Your task to perform on an android device: Search for usb-c to usb-b on walmart.com, select the first entry, and add it to the cart. Image 0: 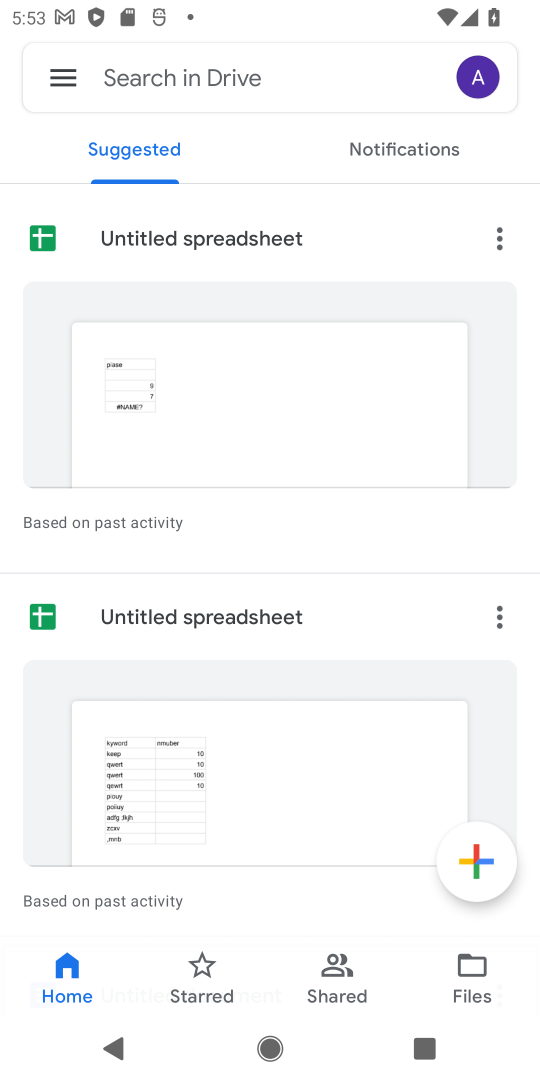
Step 0: press home button
Your task to perform on an android device: Search for usb-c to usb-b on walmart.com, select the first entry, and add it to the cart. Image 1: 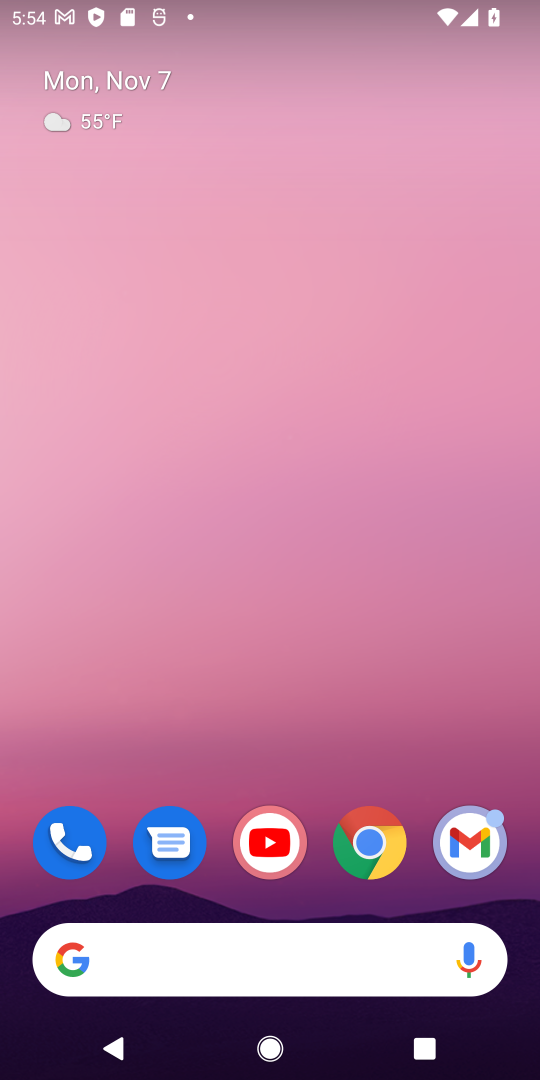
Step 1: click (359, 846)
Your task to perform on an android device: Search for usb-c to usb-b on walmart.com, select the first entry, and add it to the cart. Image 2: 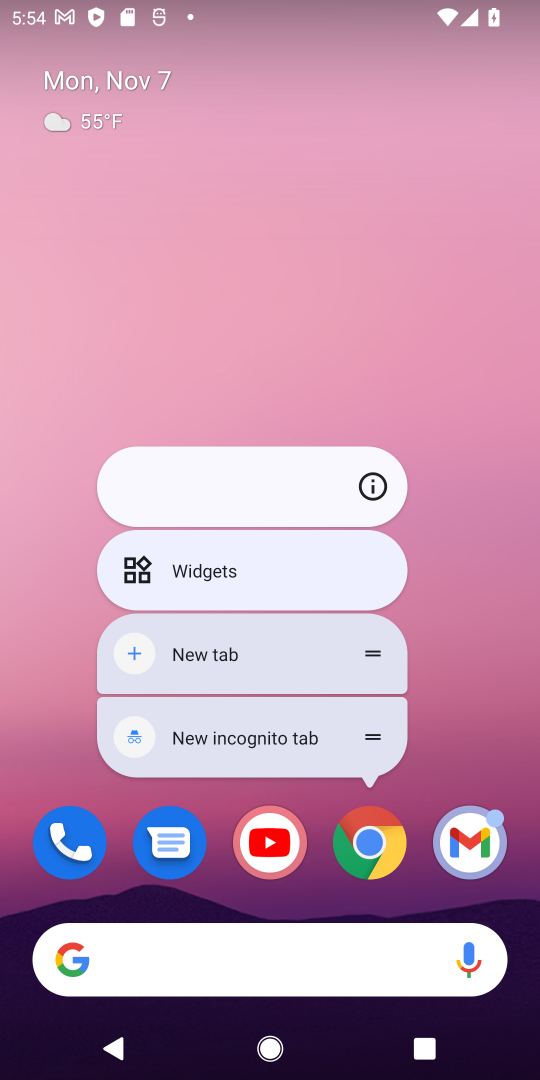
Step 2: click (361, 846)
Your task to perform on an android device: Search for usb-c to usb-b on walmart.com, select the first entry, and add it to the cart. Image 3: 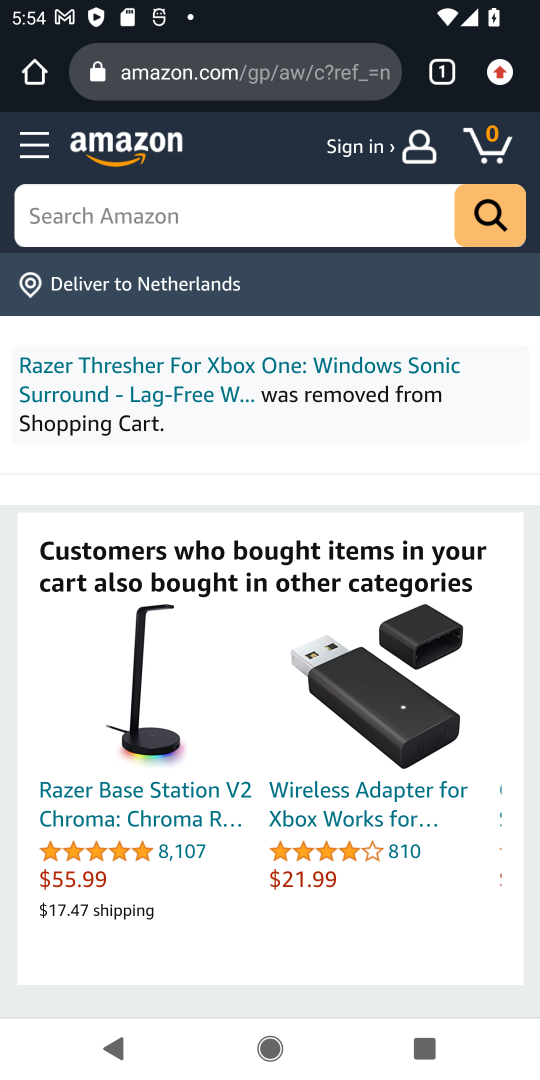
Step 3: click (281, 78)
Your task to perform on an android device: Search for usb-c to usb-b on walmart.com, select the first entry, and add it to the cart. Image 4: 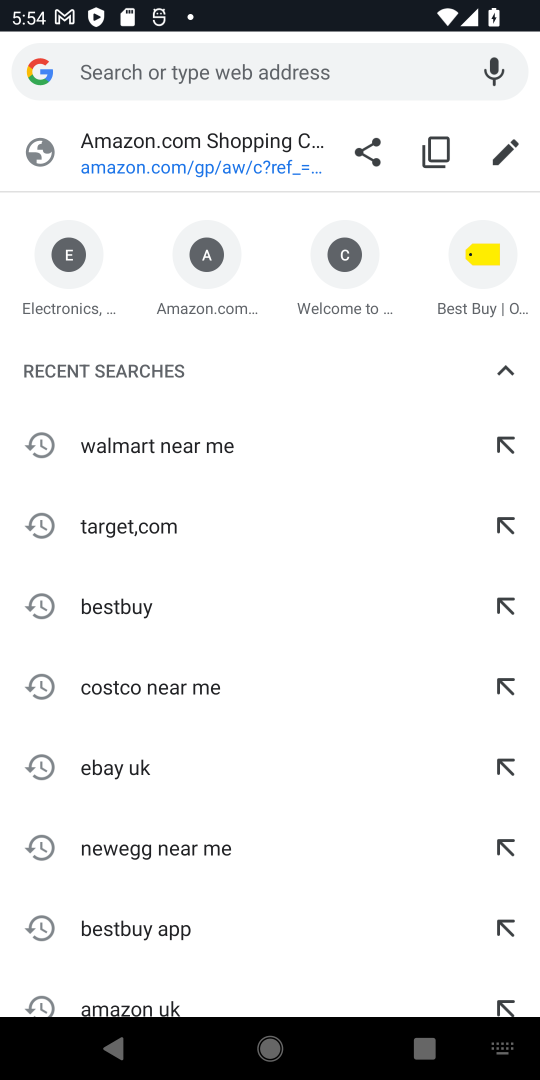
Step 4: type " walmart.com"
Your task to perform on an android device: Search for usb-c to usb-b on walmart.com, select the first entry, and add it to the cart. Image 5: 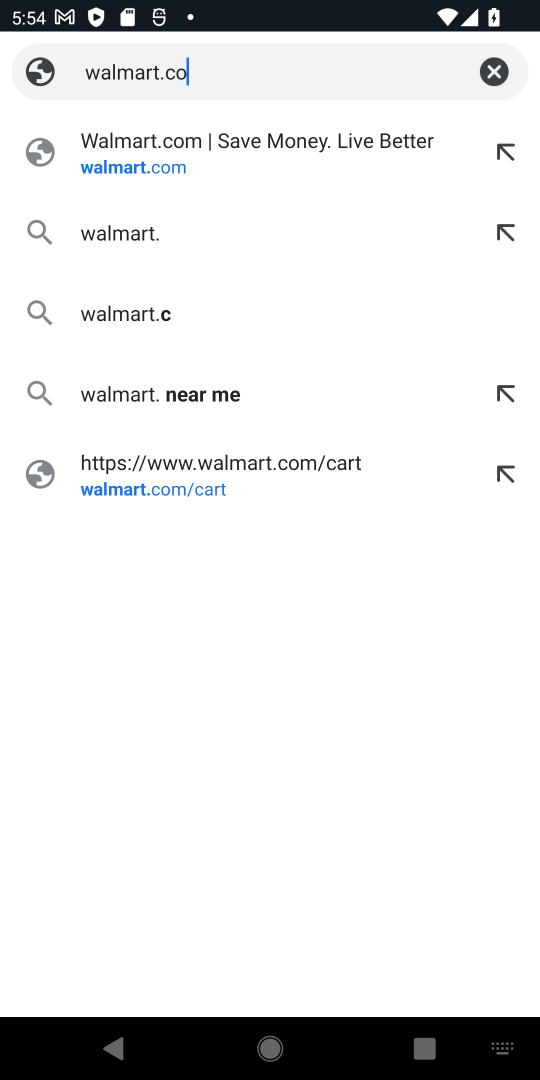
Step 5: press enter
Your task to perform on an android device: Search for usb-c to usb-b on walmart.com, select the first entry, and add it to the cart. Image 6: 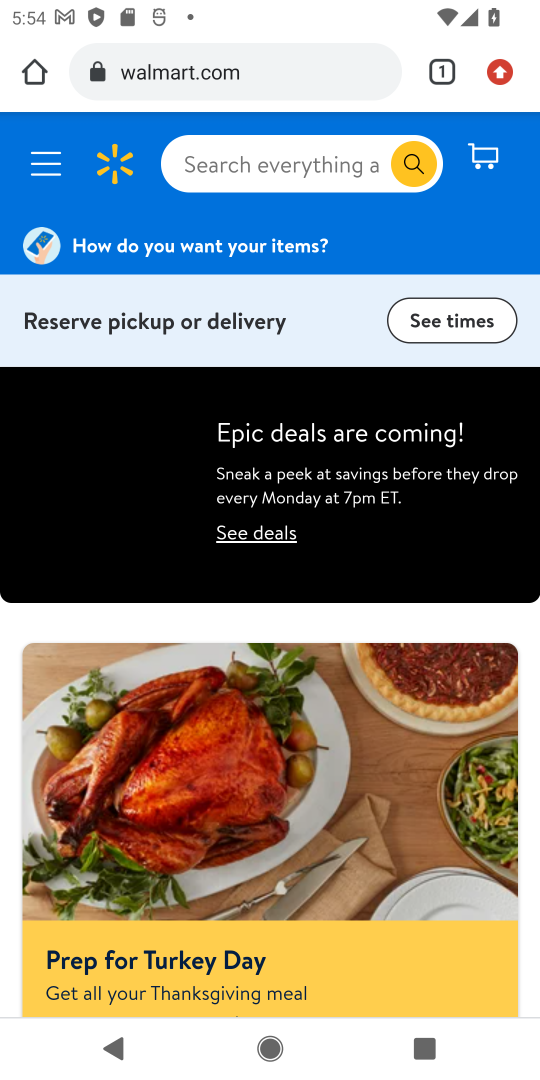
Step 6: click (323, 169)
Your task to perform on an android device: Search for usb-c to usb-b on walmart.com, select the first entry, and add it to the cart. Image 7: 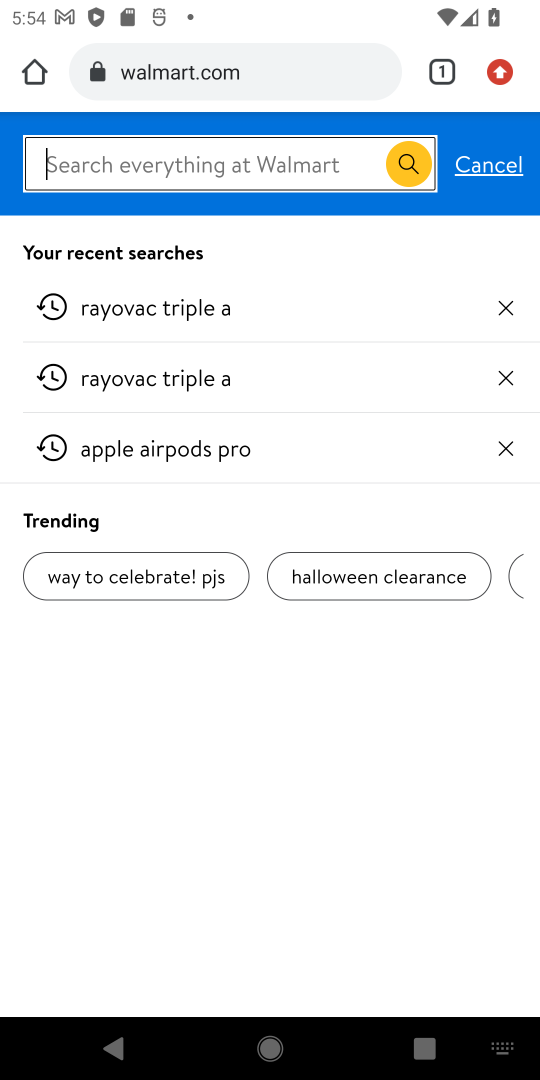
Step 7: type "usb-c to usb-b"
Your task to perform on an android device: Search for usb-c to usb-b on walmart.com, select the first entry, and add it to the cart. Image 8: 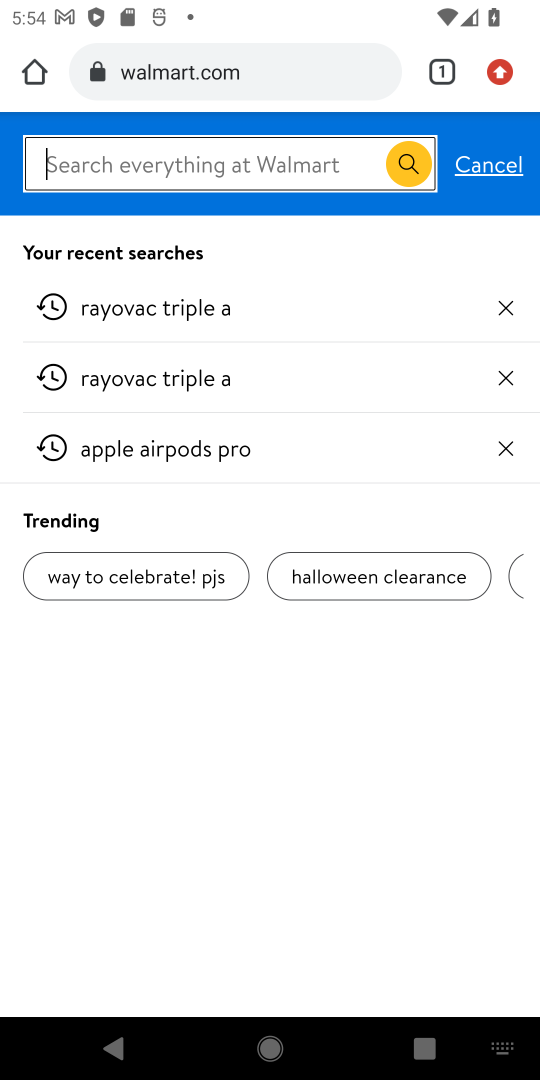
Step 8: press enter
Your task to perform on an android device: Search for usb-c to usb-b on walmart.com, select the first entry, and add it to the cart. Image 9: 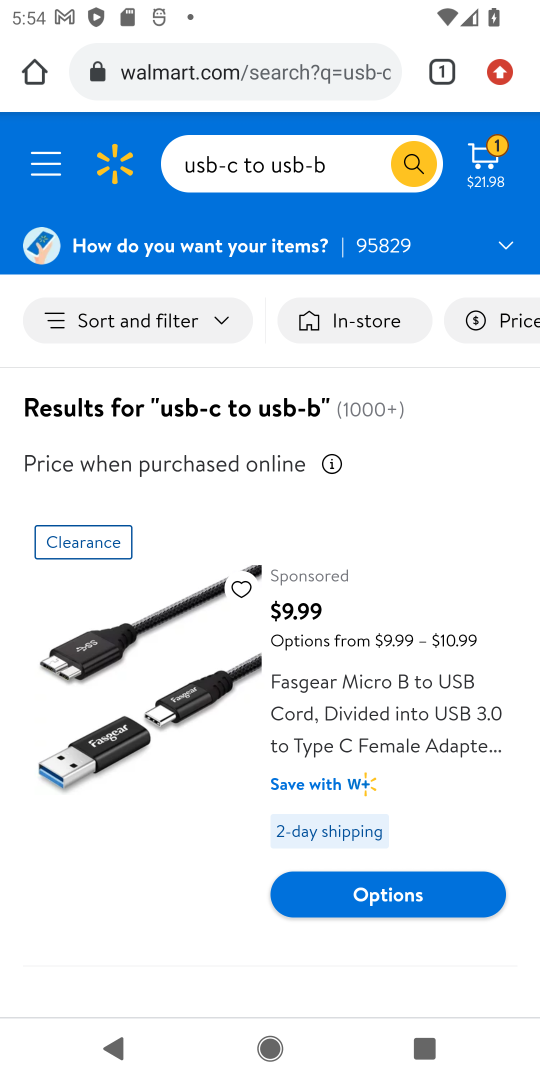
Step 9: drag from (239, 798) to (350, 591)
Your task to perform on an android device: Search for usb-c to usb-b on walmart.com, select the first entry, and add it to the cart. Image 10: 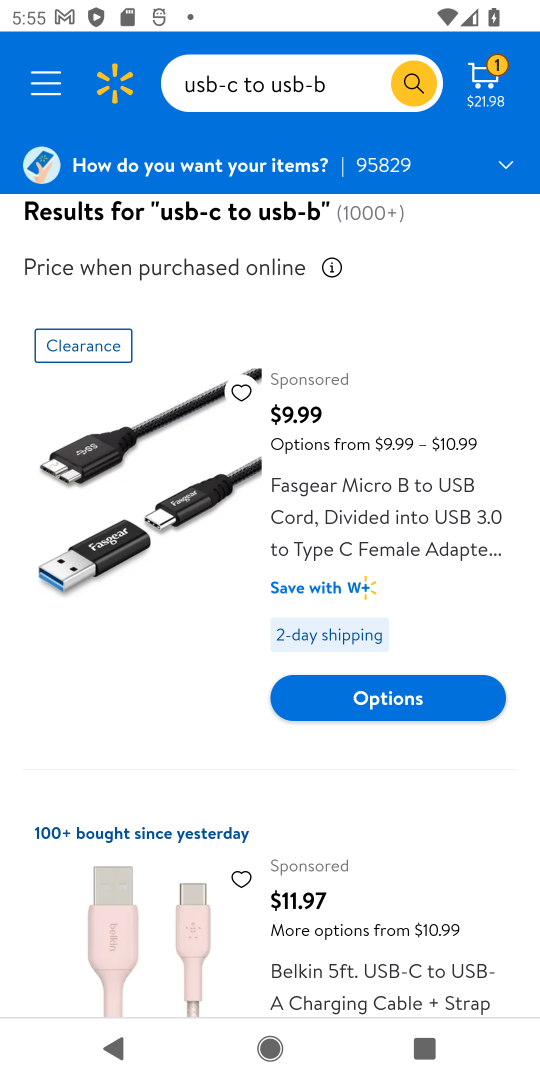
Step 10: click (376, 514)
Your task to perform on an android device: Search for usb-c to usb-b on walmart.com, select the first entry, and add it to the cart. Image 11: 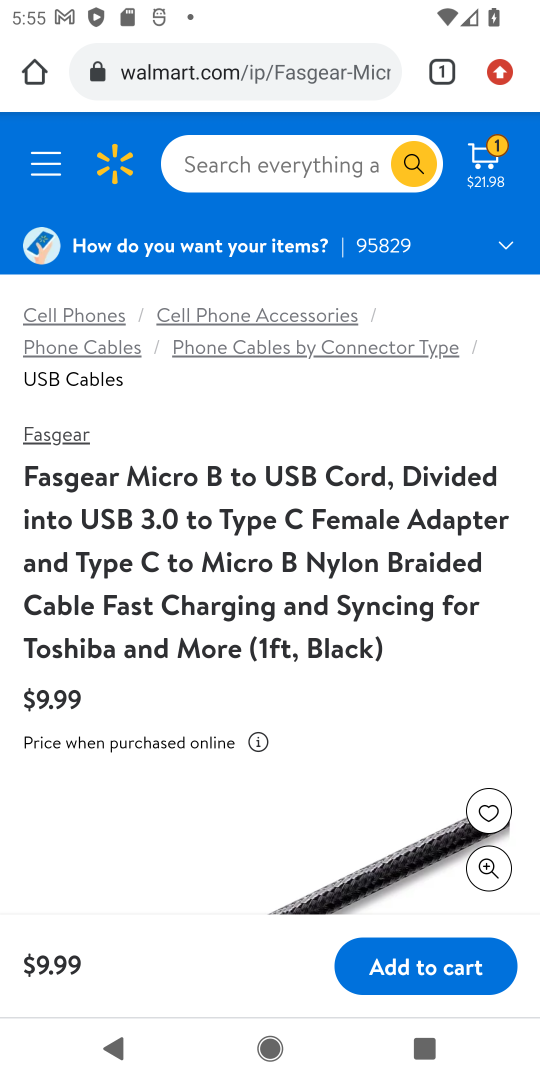
Step 11: drag from (347, 743) to (484, 298)
Your task to perform on an android device: Search for usb-c to usb-b on walmart.com, select the first entry, and add it to the cart. Image 12: 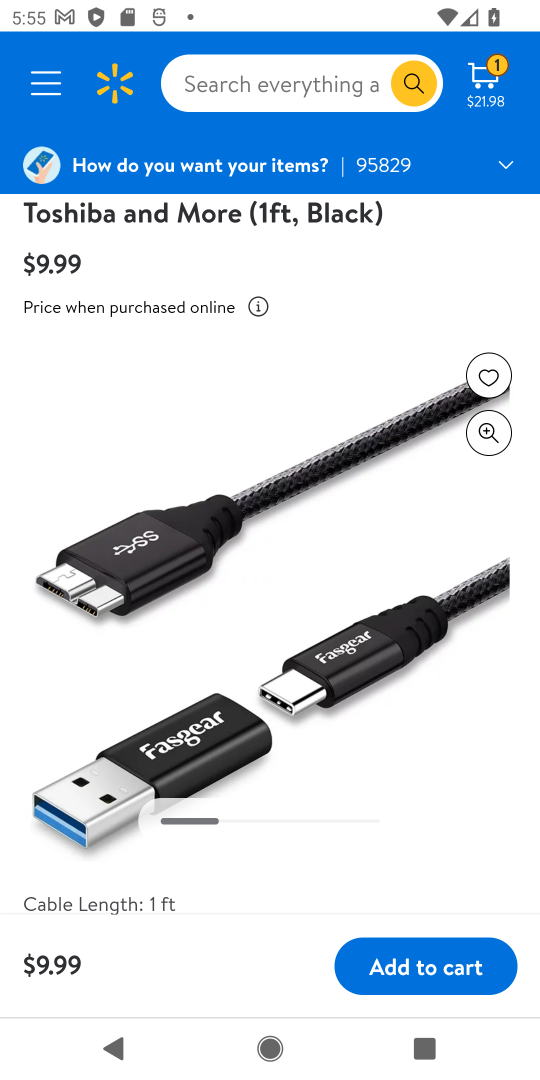
Step 12: drag from (227, 828) to (393, 405)
Your task to perform on an android device: Search for usb-c to usb-b on walmart.com, select the first entry, and add it to the cart. Image 13: 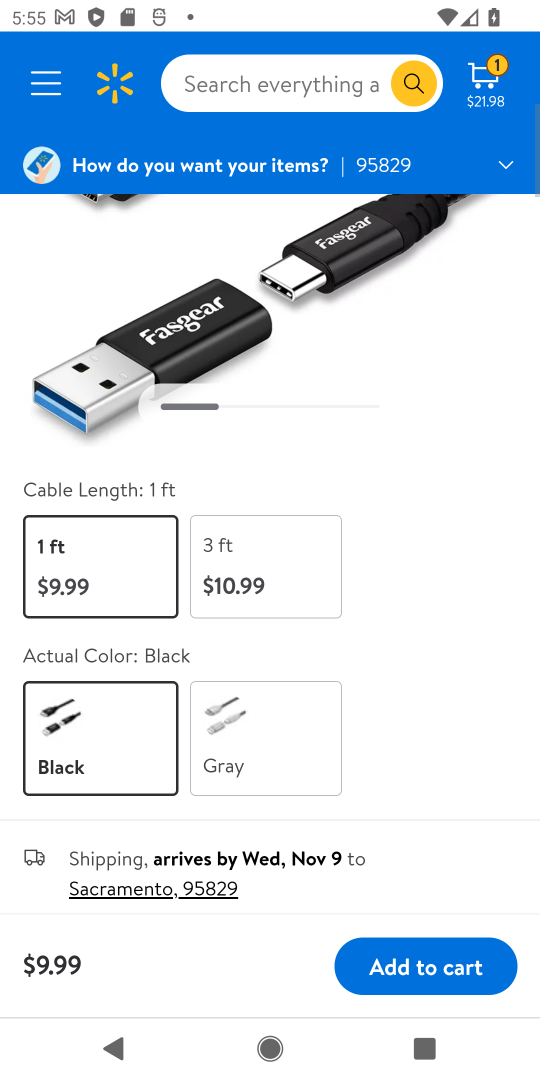
Step 13: drag from (391, 463) to (426, 926)
Your task to perform on an android device: Search for usb-c to usb-b on walmart.com, select the first entry, and add it to the cart. Image 14: 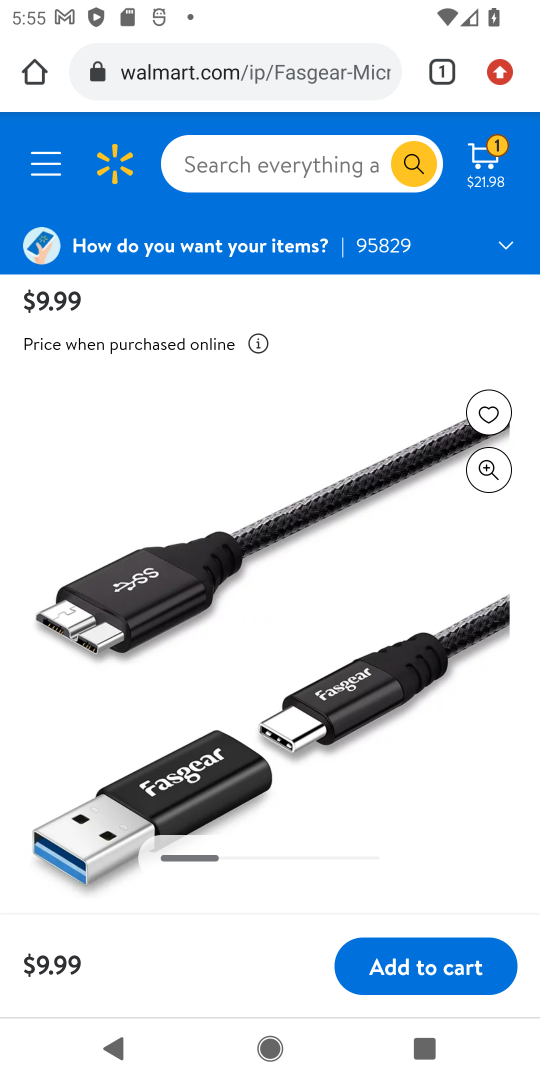
Step 14: drag from (342, 416) to (410, 887)
Your task to perform on an android device: Search for usb-c to usb-b on walmart.com, select the first entry, and add it to the cart. Image 15: 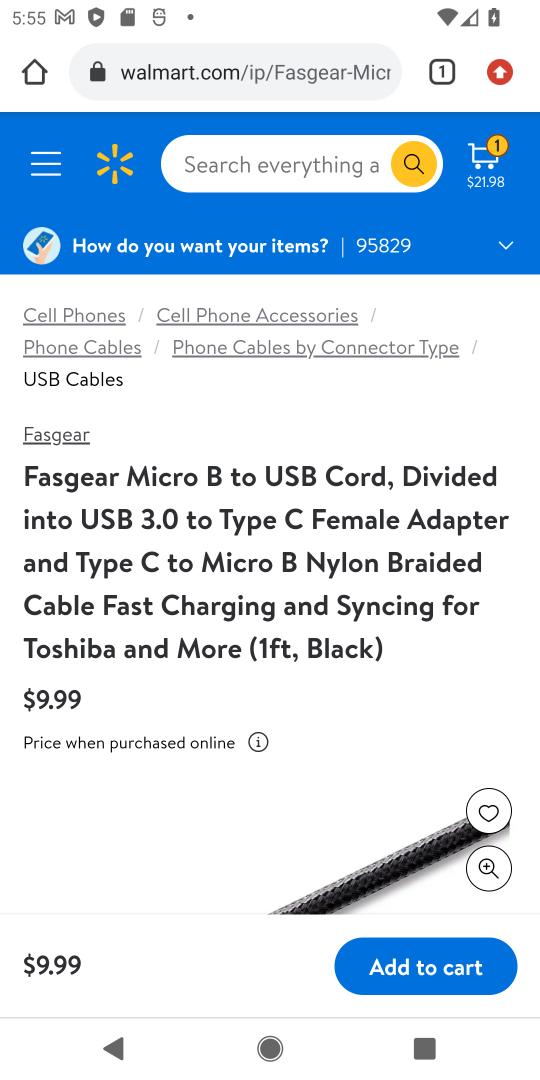
Step 15: click (425, 971)
Your task to perform on an android device: Search for usb-c to usb-b on walmart.com, select the first entry, and add it to the cart. Image 16: 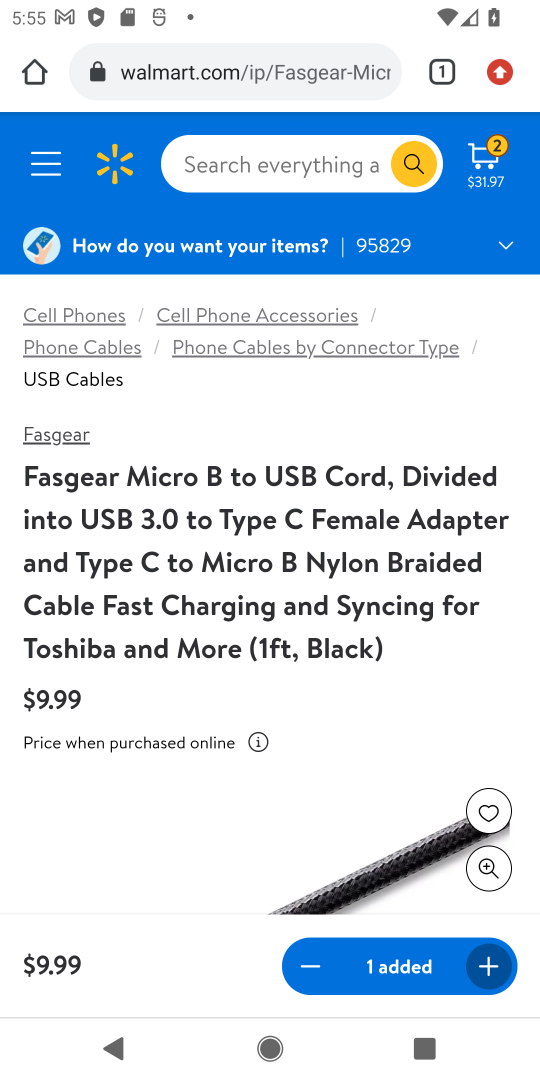
Step 16: click (491, 158)
Your task to perform on an android device: Search for usb-c to usb-b on walmart.com, select the first entry, and add it to the cart. Image 17: 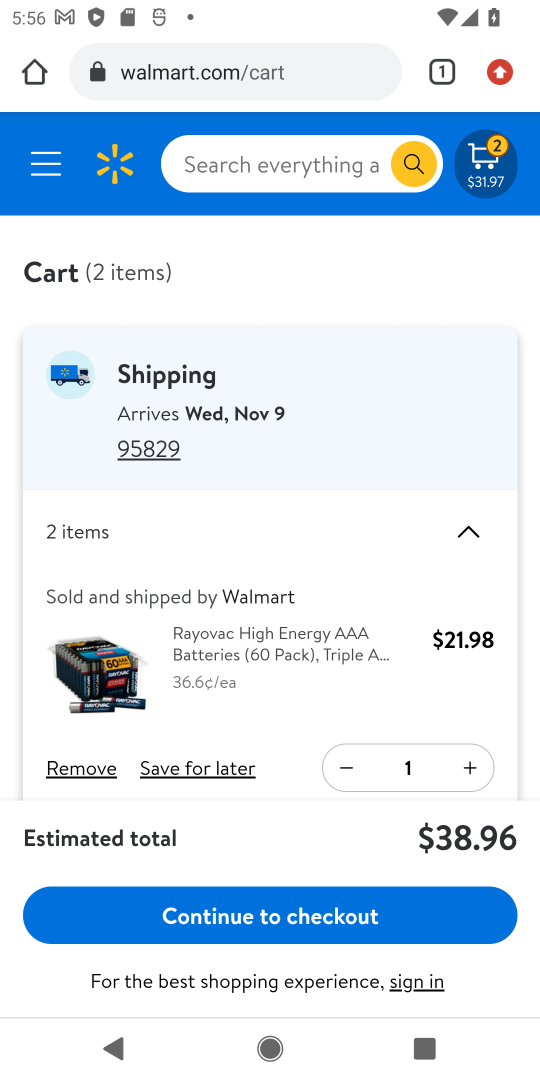
Step 17: click (83, 765)
Your task to perform on an android device: Search for usb-c to usb-b on walmart.com, select the first entry, and add it to the cart. Image 18: 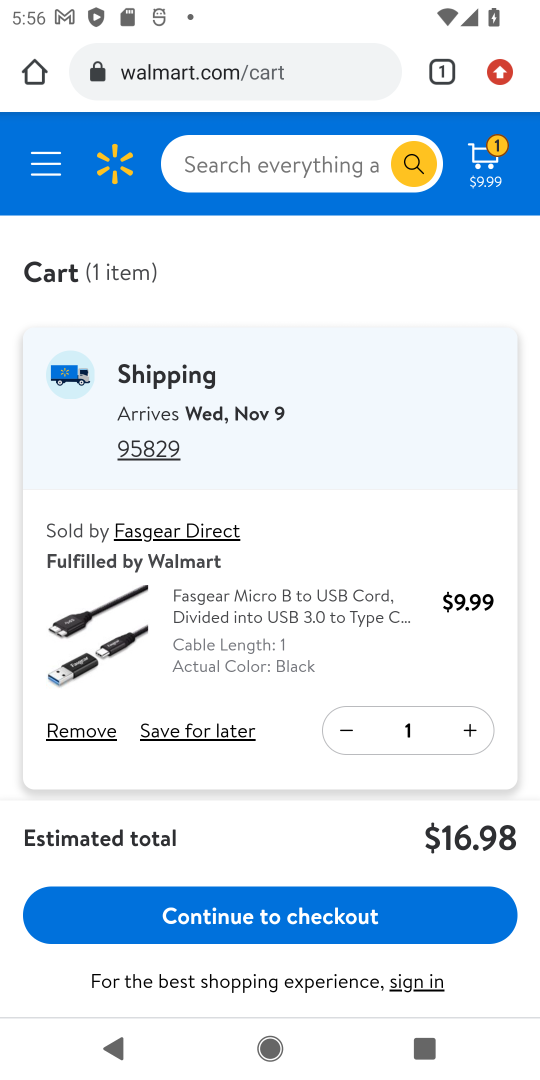
Step 18: task complete